Your task to perform on an android device: empty trash in google photos Image 0: 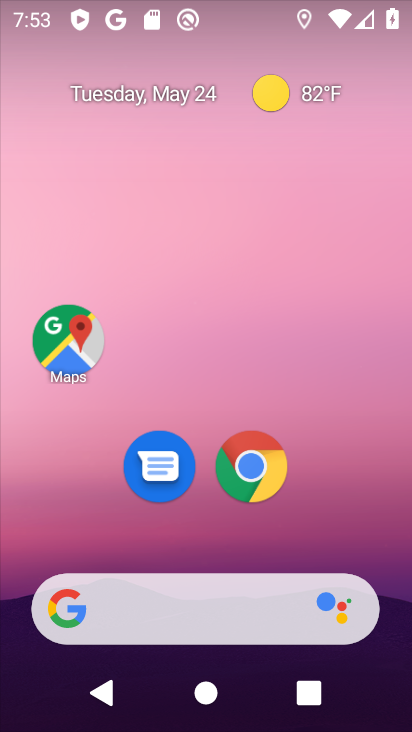
Step 0: drag from (215, 568) to (251, 84)
Your task to perform on an android device: empty trash in google photos Image 1: 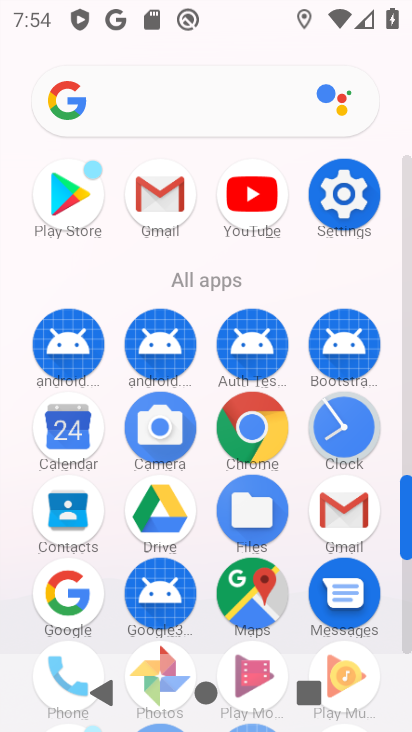
Step 1: drag from (219, 582) to (215, 281)
Your task to perform on an android device: empty trash in google photos Image 2: 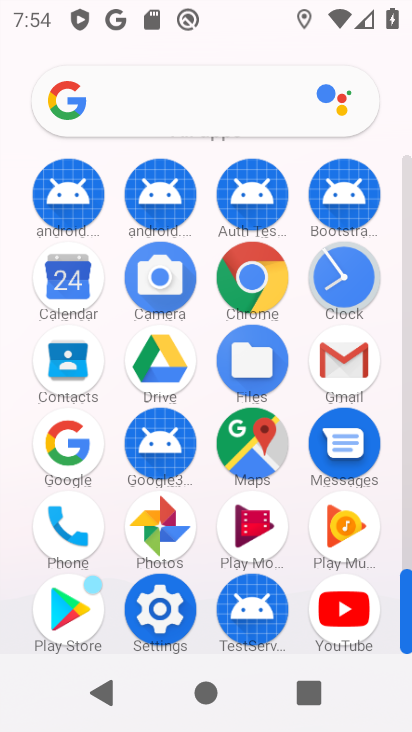
Step 2: click (165, 530)
Your task to perform on an android device: empty trash in google photos Image 3: 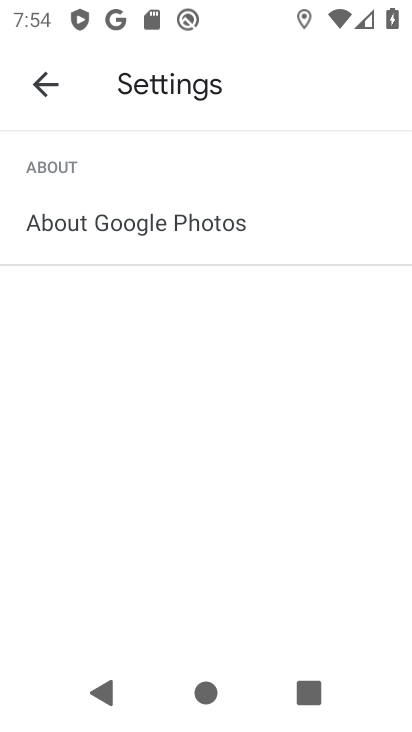
Step 3: click (42, 80)
Your task to perform on an android device: empty trash in google photos Image 4: 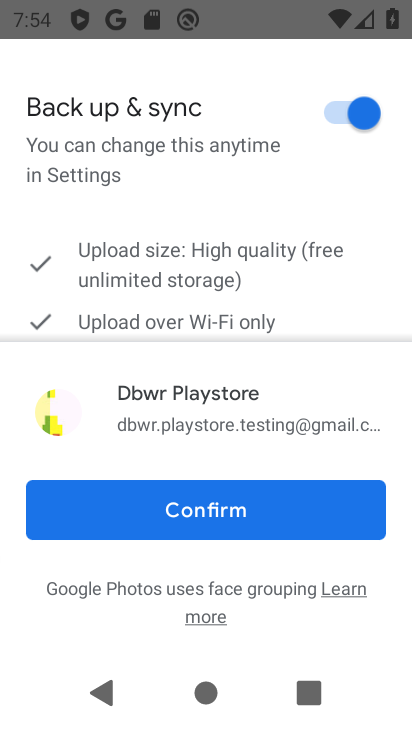
Step 4: click (200, 527)
Your task to perform on an android device: empty trash in google photos Image 5: 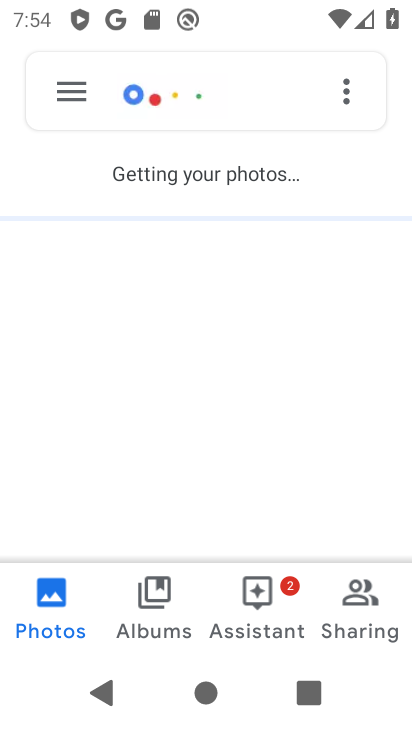
Step 5: click (66, 91)
Your task to perform on an android device: empty trash in google photos Image 6: 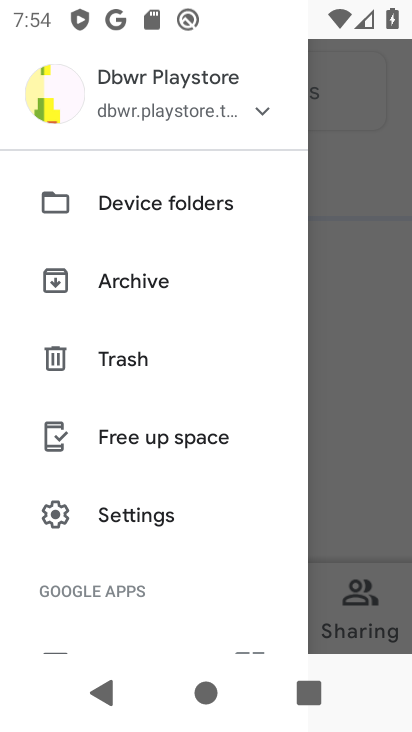
Step 6: click (147, 345)
Your task to perform on an android device: empty trash in google photos Image 7: 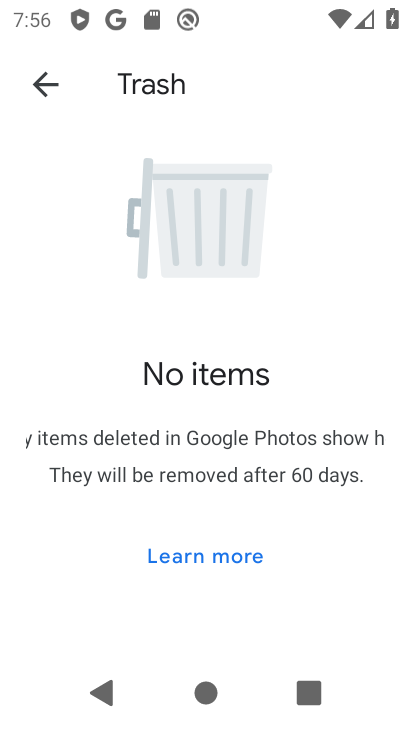
Step 7: task complete